Your task to perform on an android device: open the mobile data screen to see how much data has been used Image 0: 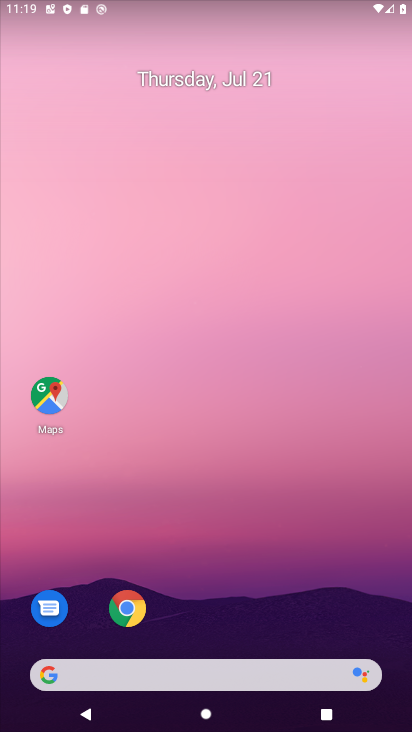
Step 0: drag from (216, 606) to (293, 3)
Your task to perform on an android device: open the mobile data screen to see how much data has been used Image 1: 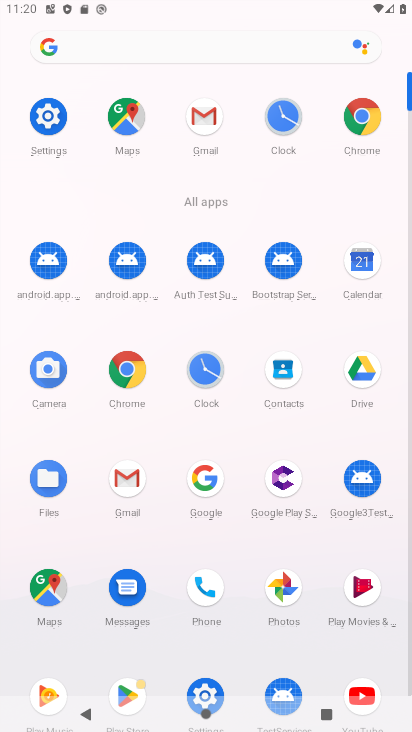
Step 1: click (50, 122)
Your task to perform on an android device: open the mobile data screen to see how much data has been used Image 2: 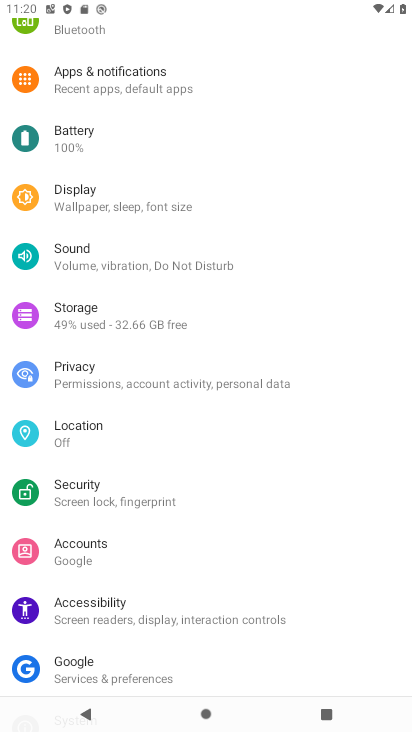
Step 2: drag from (111, 139) to (126, 509)
Your task to perform on an android device: open the mobile data screen to see how much data has been used Image 3: 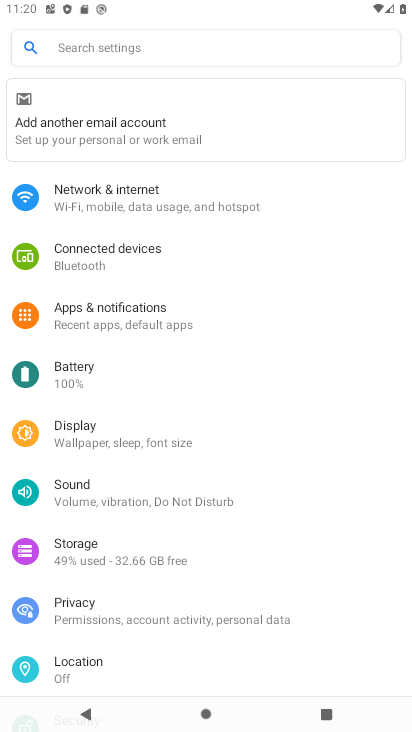
Step 3: click (144, 202)
Your task to perform on an android device: open the mobile data screen to see how much data has been used Image 4: 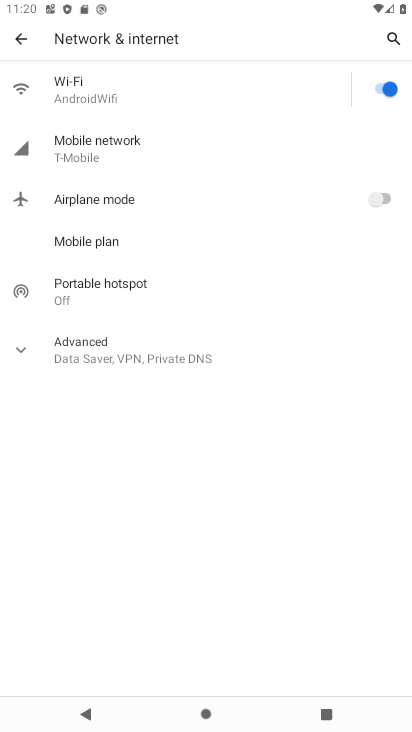
Step 4: click (138, 154)
Your task to perform on an android device: open the mobile data screen to see how much data has been used Image 5: 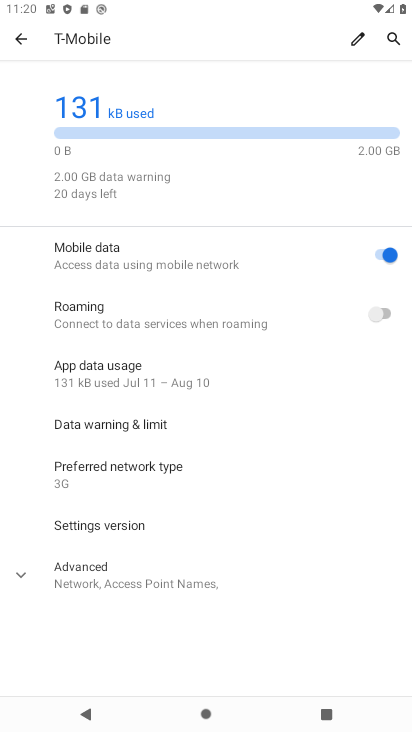
Step 5: click (118, 362)
Your task to perform on an android device: open the mobile data screen to see how much data has been used Image 6: 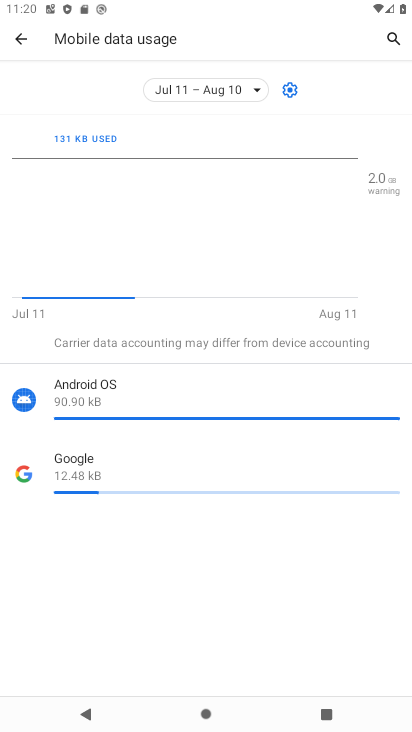
Step 6: task complete